Your task to perform on an android device: Go to battery settings Image 0: 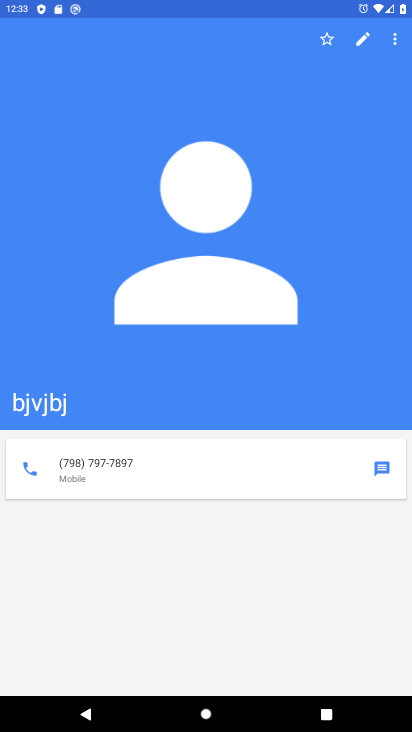
Step 0: press home button
Your task to perform on an android device: Go to battery settings Image 1: 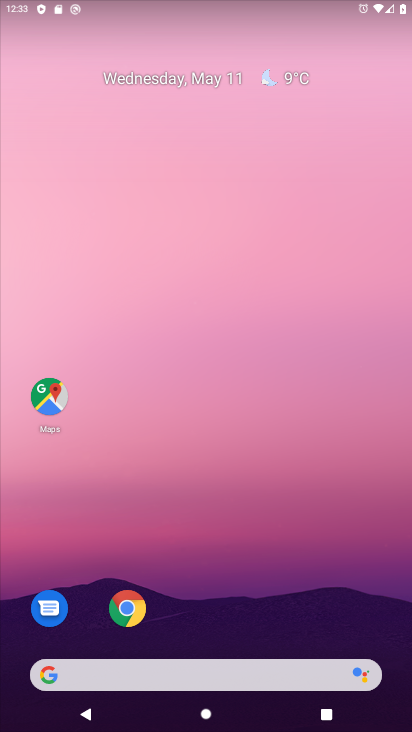
Step 1: drag from (241, 647) to (213, 126)
Your task to perform on an android device: Go to battery settings Image 2: 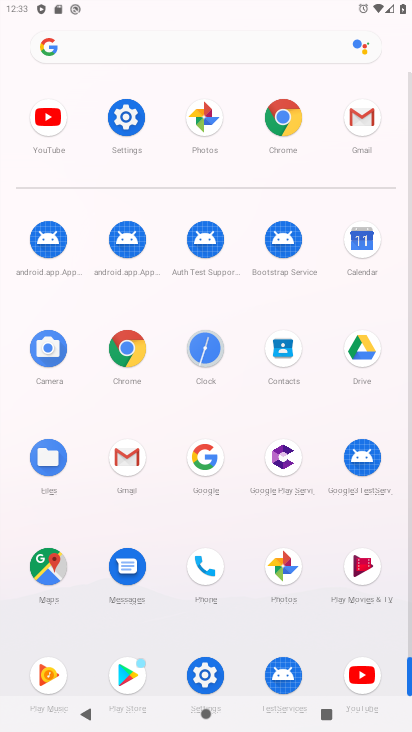
Step 2: click (133, 129)
Your task to perform on an android device: Go to battery settings Image 3: 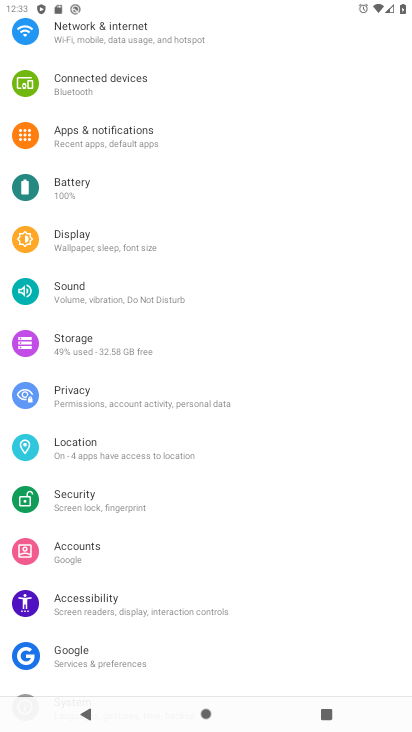
Step 3: click (106, 189)
Your task to perform on an android device: Go to battery settings Image 4: 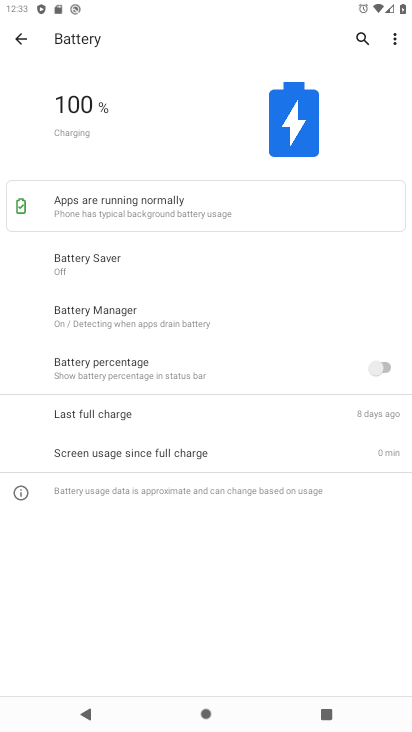
Step 4: task complete